Your task to perform on an android device: Show me popular games on the Play Store Image 0: 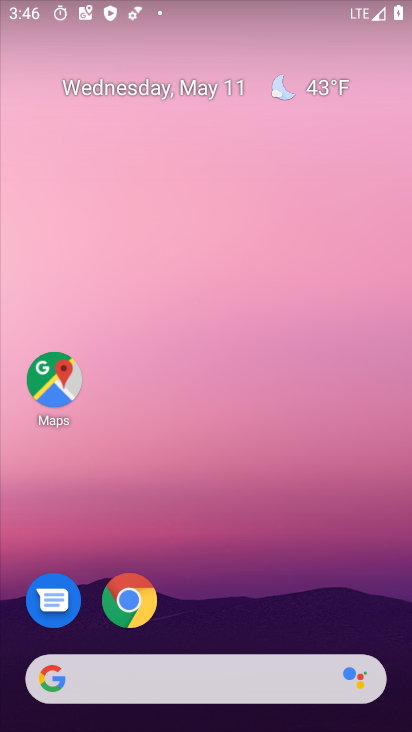
Step 0: drag from (344, 628) to (333, 0)
Your task to perform on an android device: Show me popular games on the Play Store Image 1: 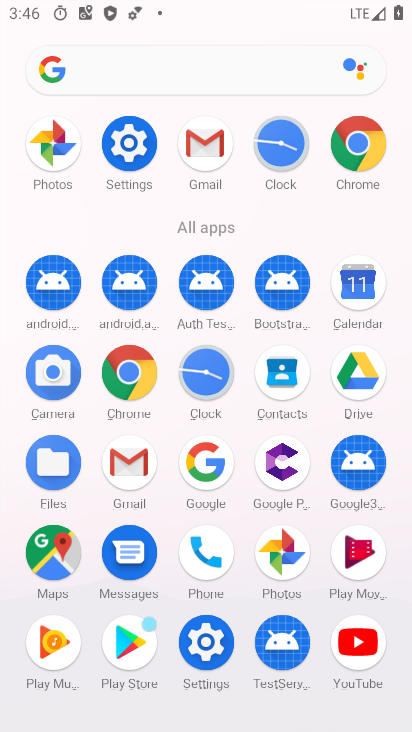
Step 1: click (129, 641)
Your task to perform on an android device: Show me popular games on the Play Store Image 2: 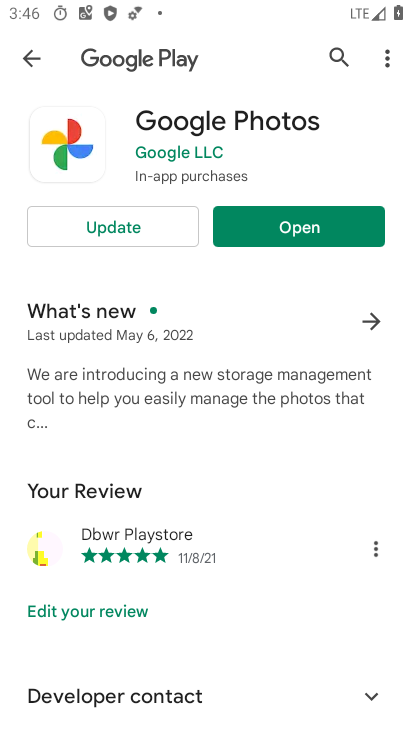
Step 2: click (23, 62)
Your task to perform on an android device: Show me popular games on the Play Store Image 3: 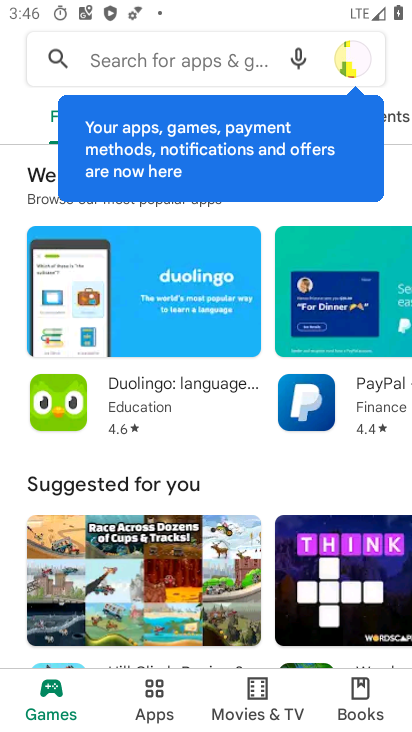
Step 3: click (60, 694)
Your task to perform on an android device: Show me popular games on the Play Store Image 4: 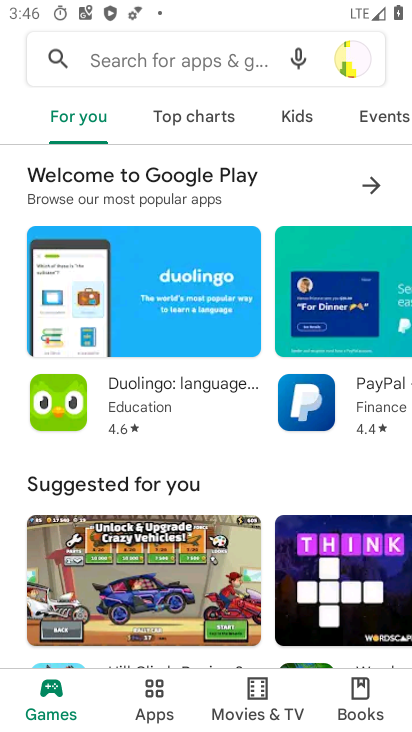
Step 4: drag from (202, 530) to (207, 161)
Your task to perform on an android device: Show me popular games on the Play Store Image 5: 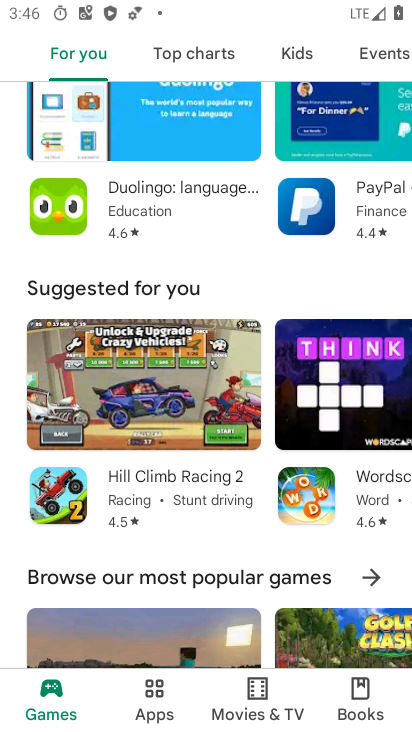
Step 5: drag from (210, 525) to (227, 173)
Your task to perform on an android device: Show me popular games on the Play Store Image 6: 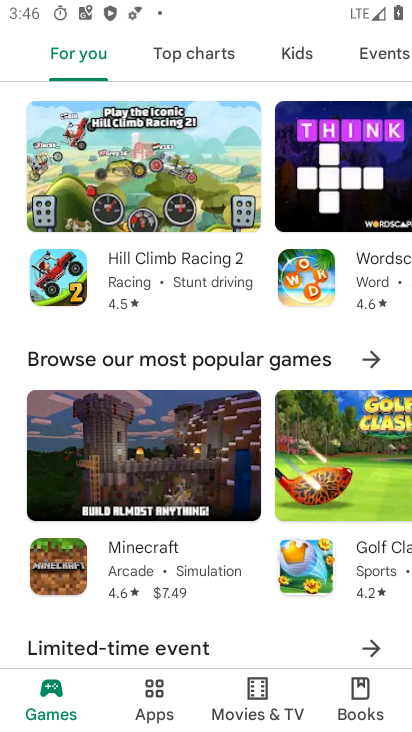
Step 6: click (330, 361)
Your task to perform on an android device: Show me popular games on the Play Store Image 7: 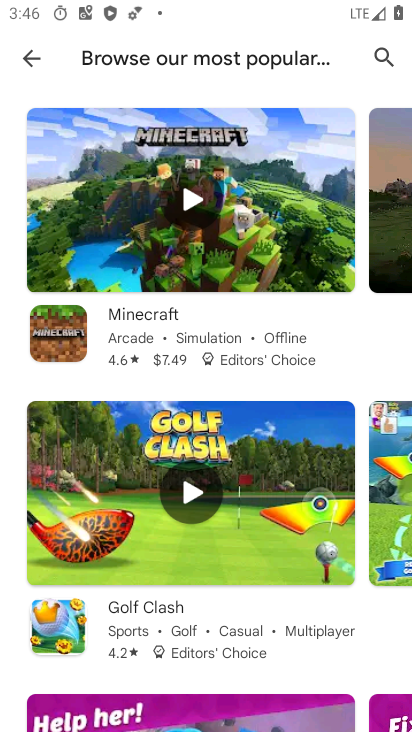
Step 7: task complete